Your task to perform on an android device: Clear the shopping cart on bestbuy.com. Search for "energizer triple a" on bestbuy.com, select the first entry, add it to the cart, then select checkout. Image 0: 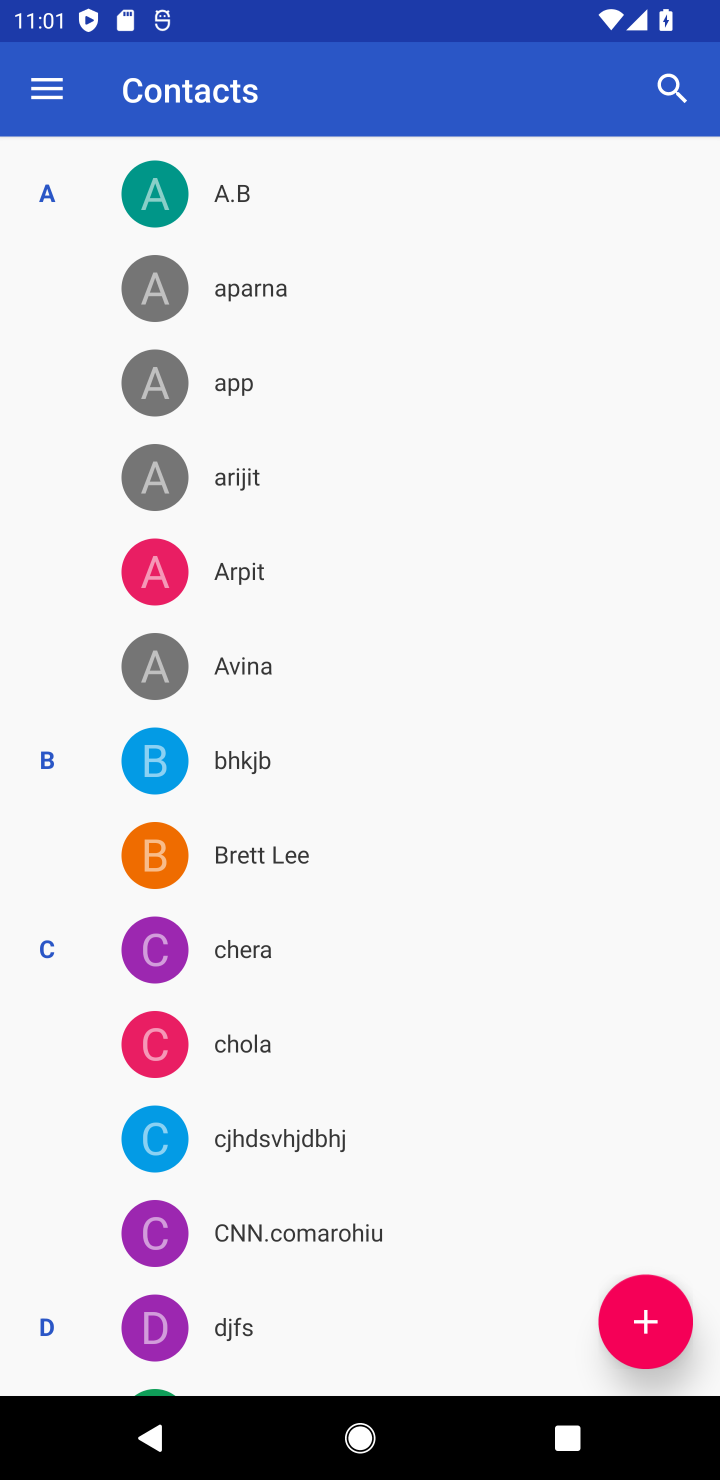
Step 0: press home button
Your task to perform on an android device: Clear the shopping cart on bestbuy.com. Search for "energizer triple a" on bestbuy.com, select the first entry, add it to the cart, then select checkout. Image 1: 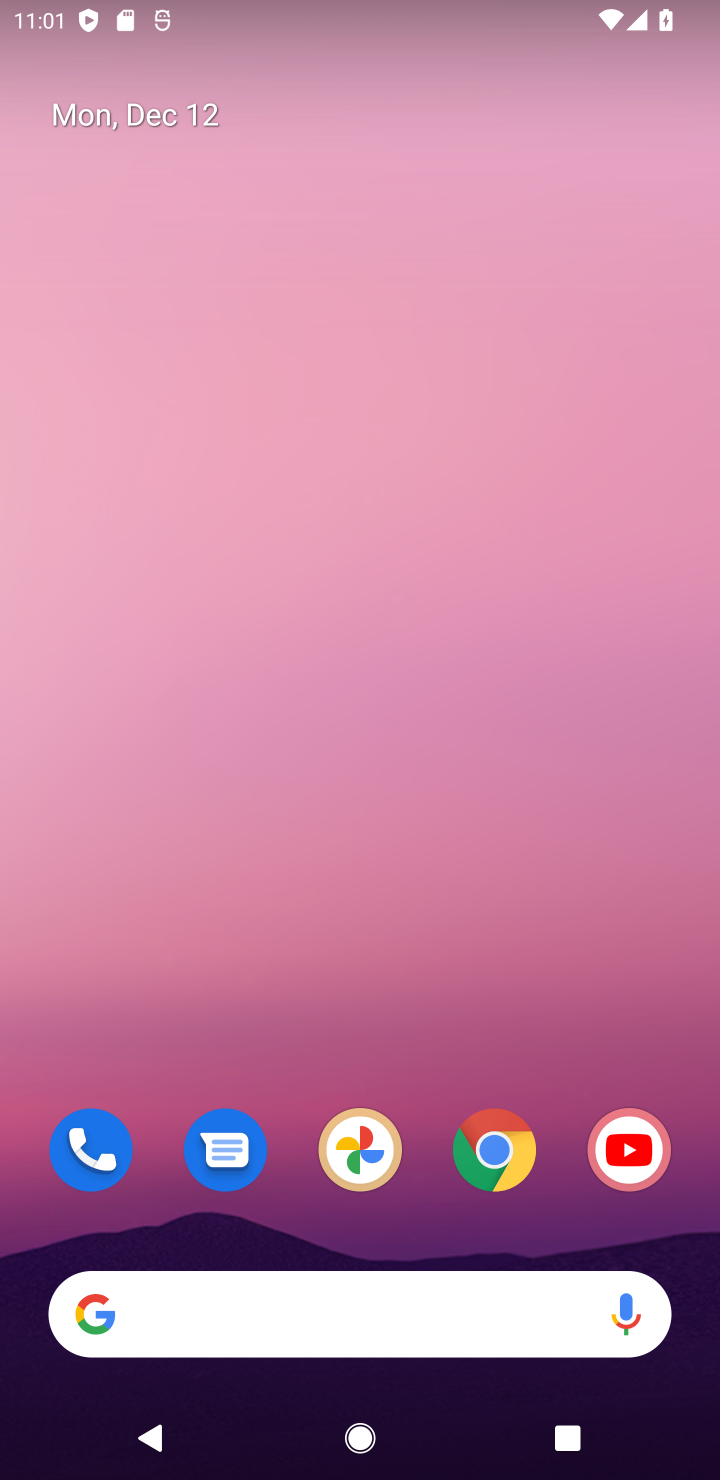
Step 1: click (503, 1148)
Your task to perform on an android device: Clear the shopping cart on bestbuy.com. Search for "energizer triple a" on bestbuy.com, select the first entry, add it to the cart, then select checkout. Image 2: 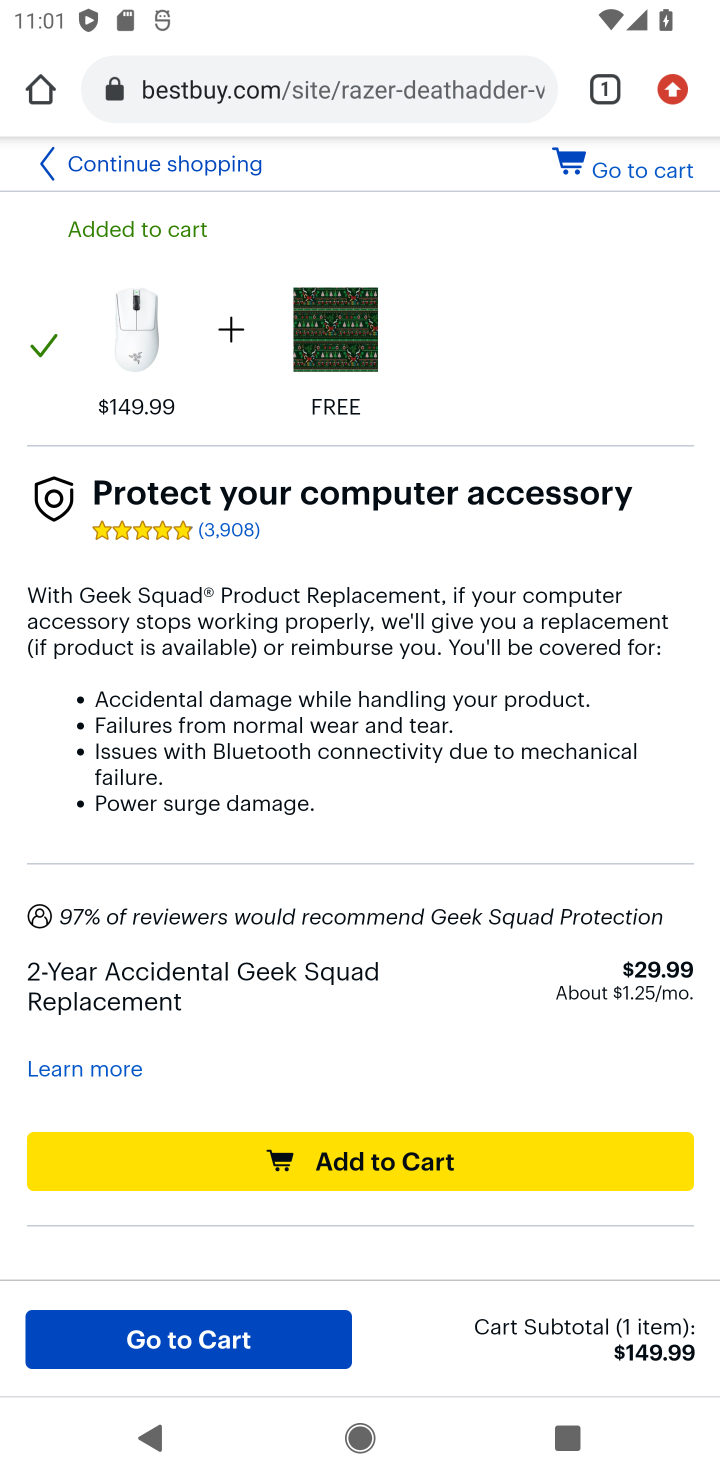
Step 2: click (658, 167)
Your task to perform on an android device: Clear the shopping cart on bestbuy.com. Search for "energizer triple a" on bestbuy.com, select the first entry, add it to the cart, then select checkout. Image 3: 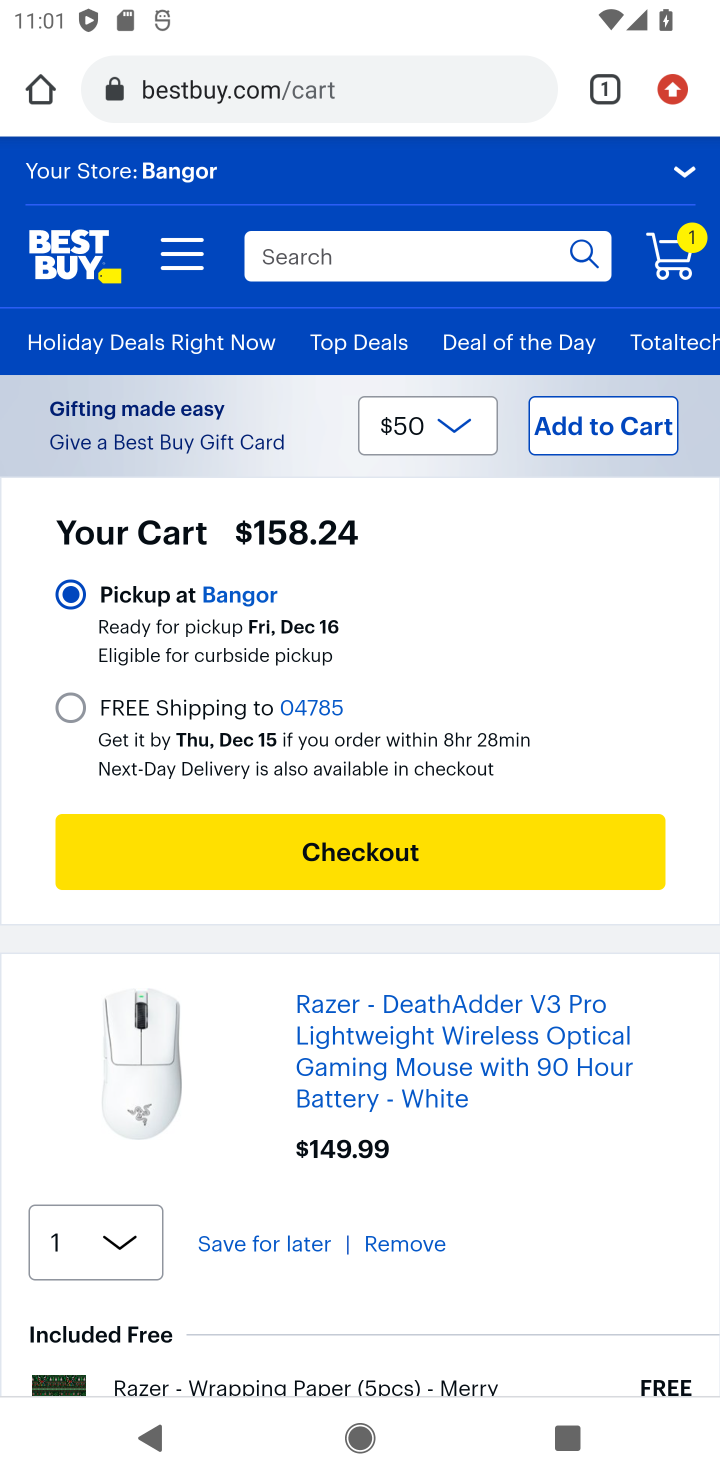
Step 3: click (412, 1250)
Your task to perform on an android device: Clear the shopping cart on bestbuy.com. Search for "energizer triple a" on bestbuy.com, select the first entry, add it to the cart, then select checkout. Image 4: 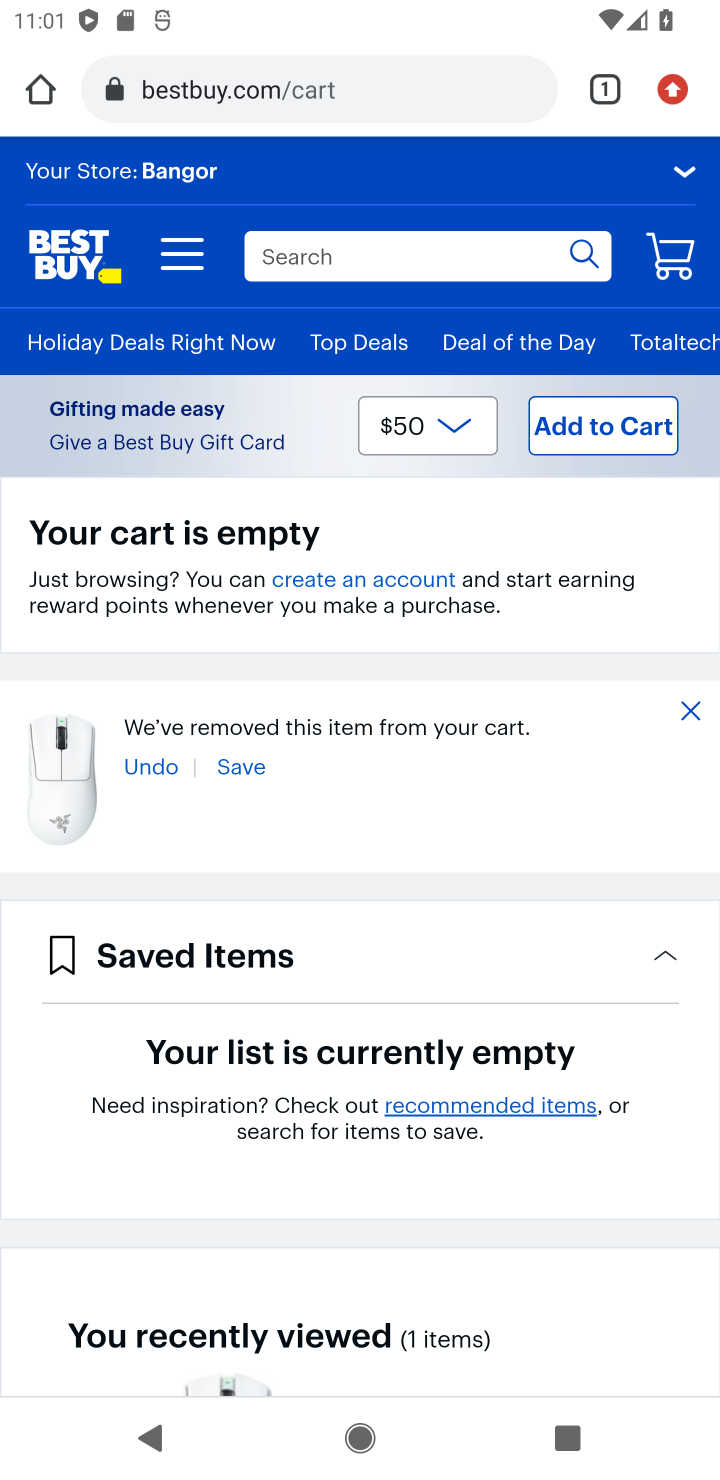
Step 4: drag from (431, 1226) to (457, 689)
Your task to perform on an android device: Clear the shopping cart on bestbuy.com. Search for "energizer triple a" on bestbuy.com, select the first entry, add it to the cart, then select checkout. Image 5: 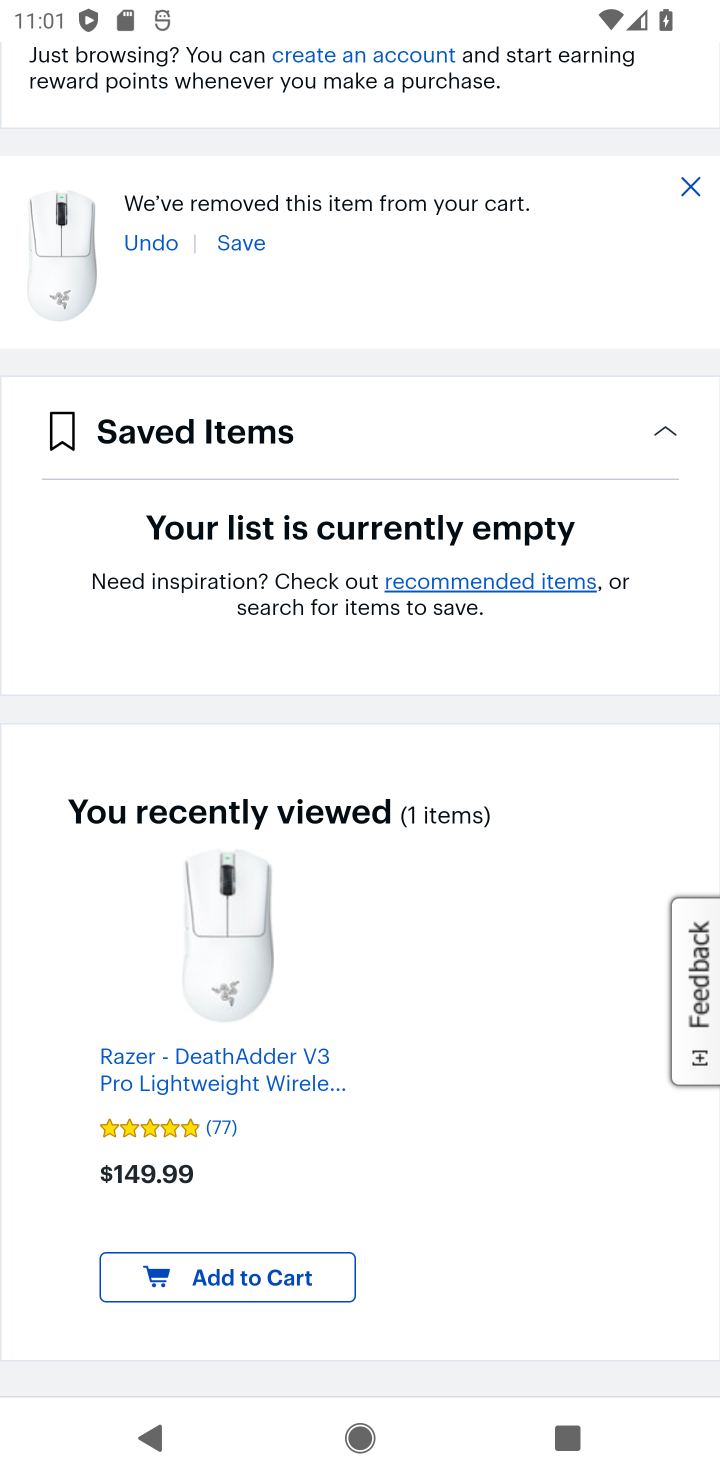
Step 5: drag from (419, 388) to (419, 1135)
Your task to perform on an android device: Clear the shopping cart on bestbuy.com. Search for "energizer triple a" on bestbuy.com, select the first entry, add it to the cart, then select checkout. Image 6: 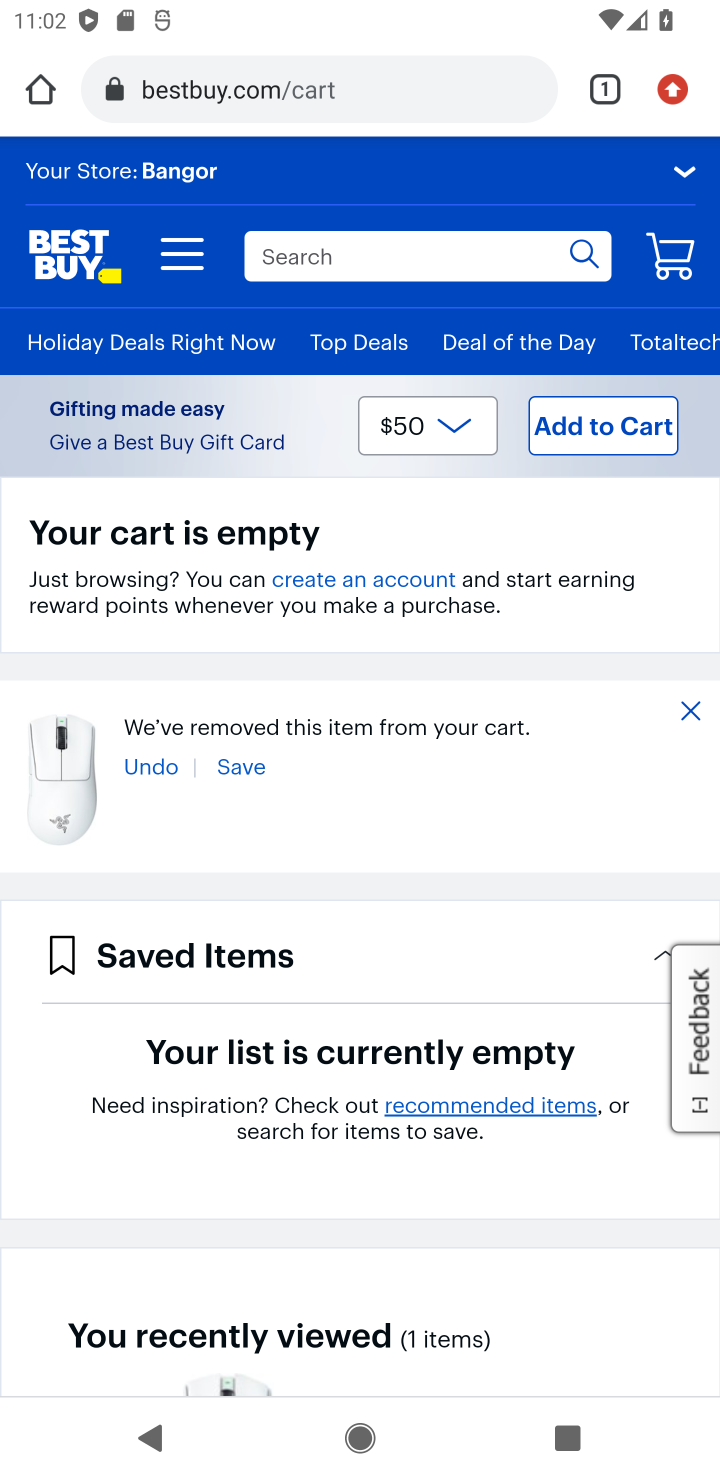
Step 6: click (267, 265)
Your task to perform on an android device: Clear the shopping cart on bestbuy.com. Search for "energizer triple a" on bestbuy.com, select the first entry, add it to the cart, then select checkout. Image 7: 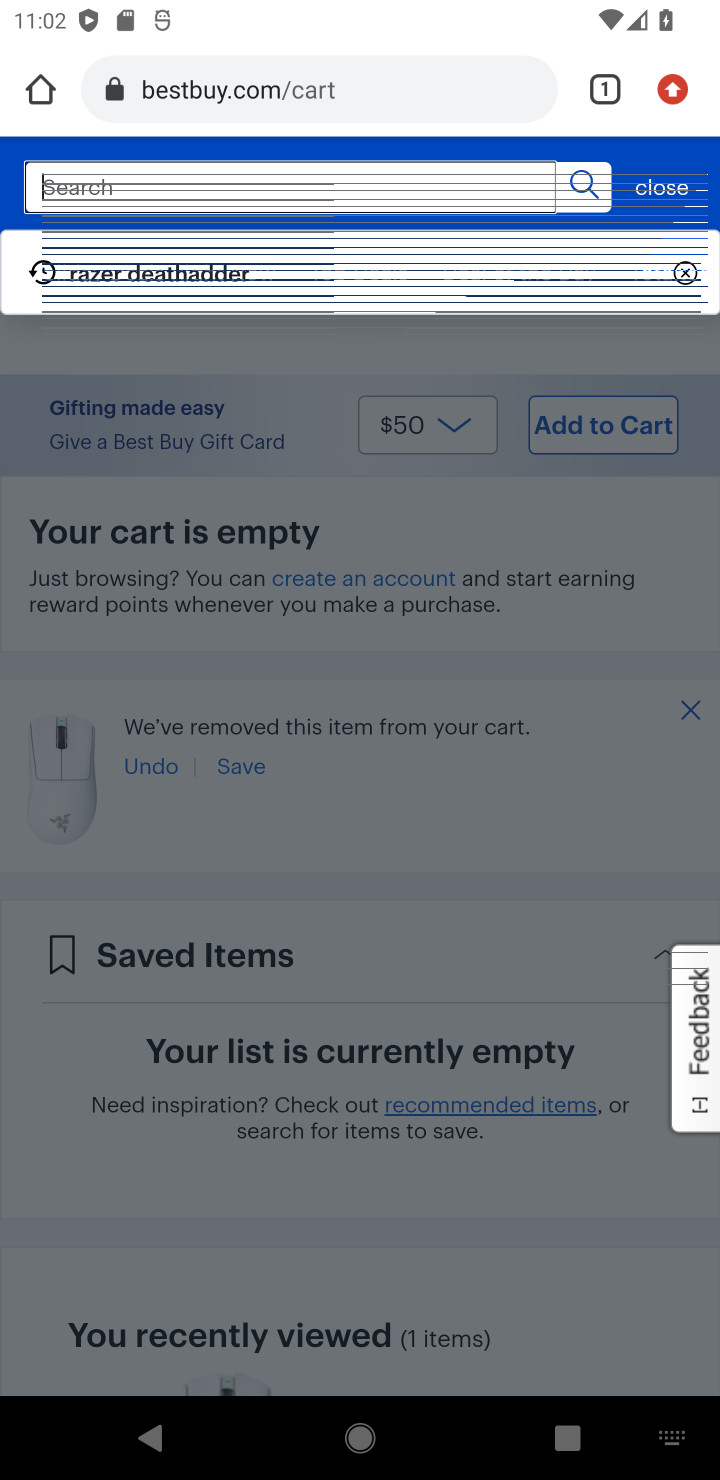
Step 7: type "energizer triple a"
Your task to perform on an android device: Clear the shopping cart on bestbuy.com. Search for "energizer triple a" on bestbuy.com, select the first entry, add it to the cart, then select checkout. Image 8: 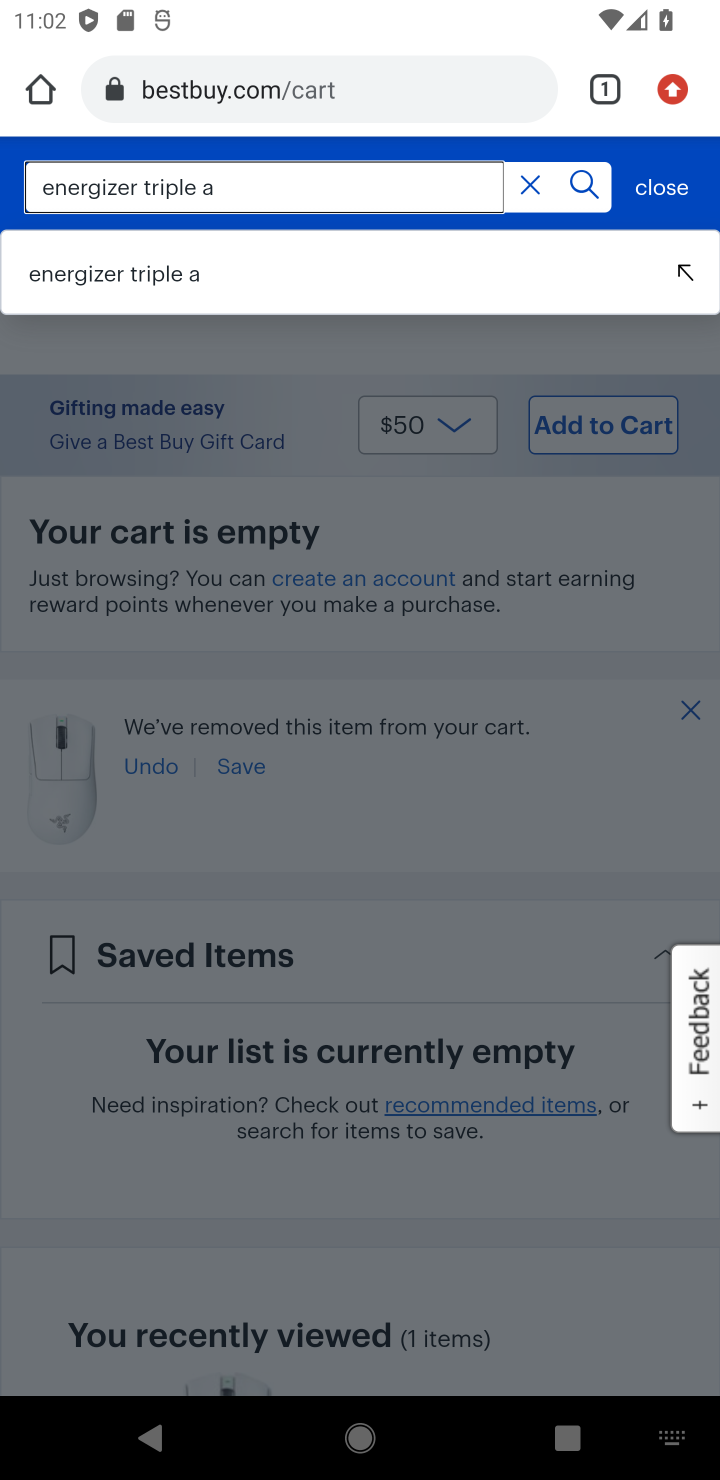
Step 8: click (129, 272)
Your task to perform on an android device: Clear the shopping cart on bestbuy.com. Search for "energizer triple a" on bestbuy.com, select the first entry, add it to the cart, then select checkout. Image 9: 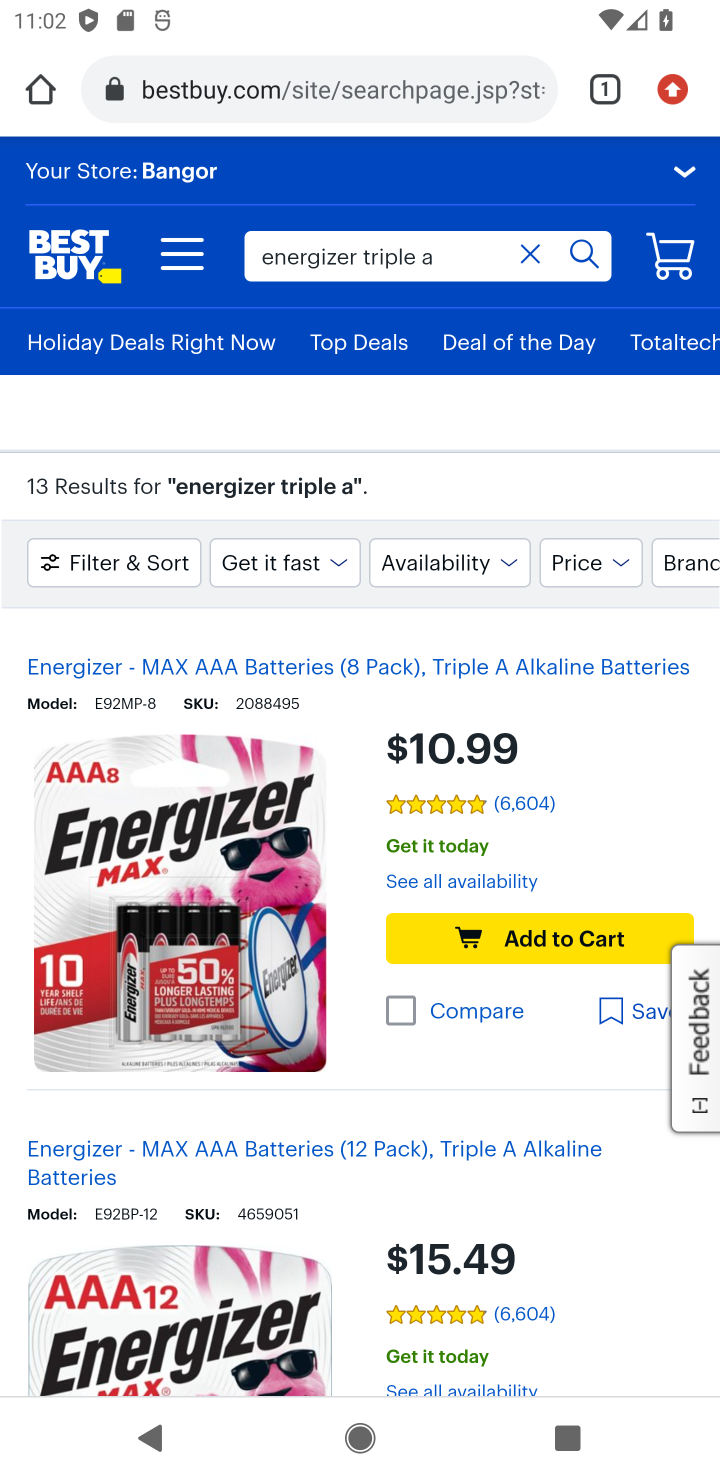
Step 9: click (552, 936)
Your task to perform on an android device: Clear the shopping cart on bestbuy.com. Search for "energizer triple a" on bestbuy.com, select the first entry, add it to the cart, then select checkout. Image 10: 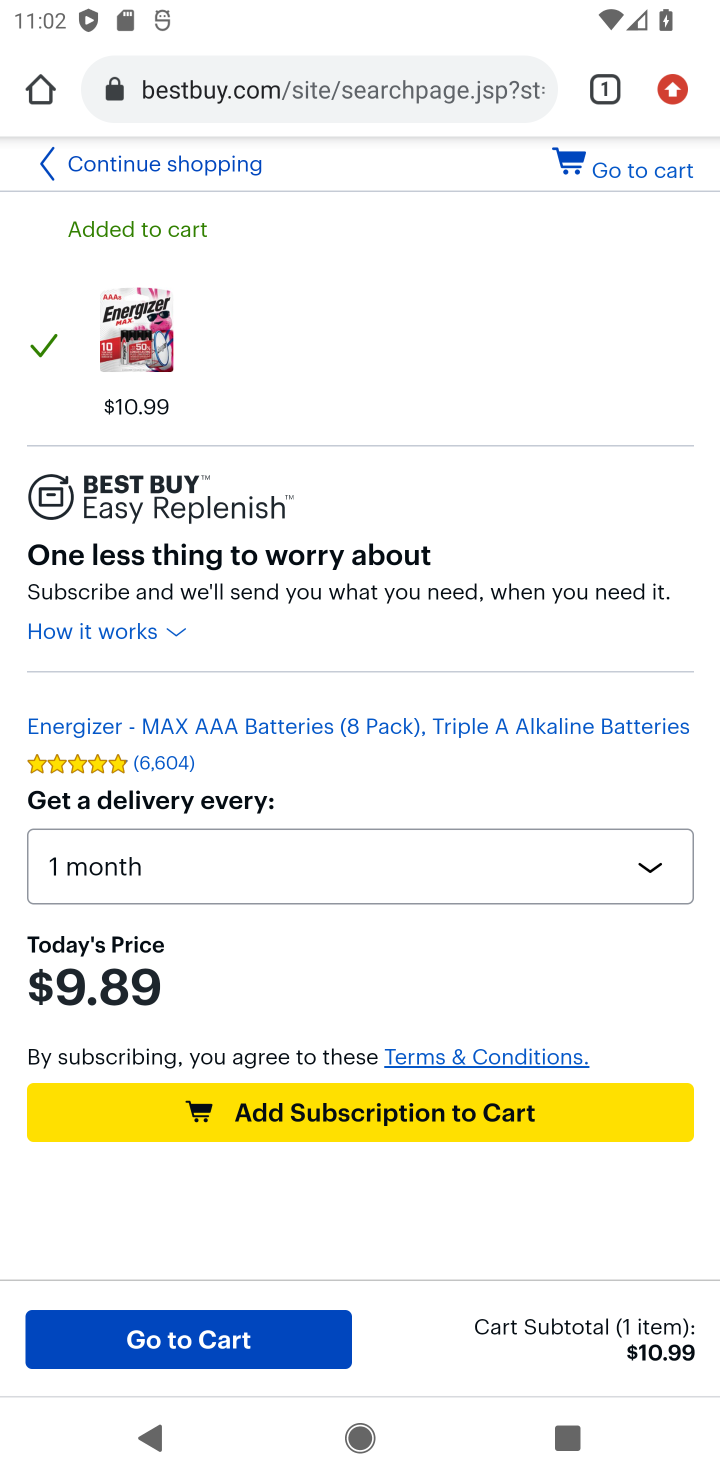
Step 10: click (651, 172)
Your task to perform on an android device: Clear the shopping cart on bestbuy.com. Search for "energizer triple a" on bestbuy.com, select the first entry, add it to the cart, then select checkout. Image 11: 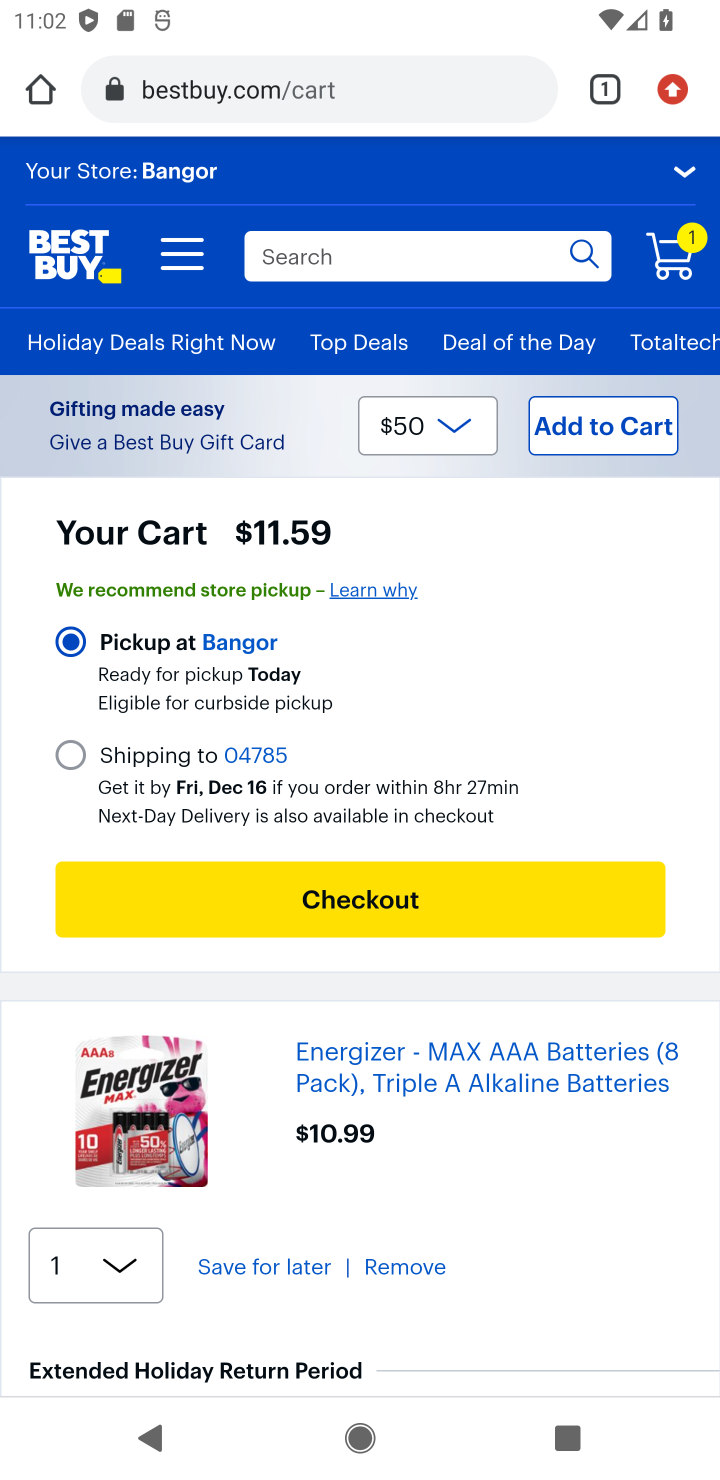
Step 11: click (357, 894)
Your task to perform on an android device: Clear the shopping cart on bestbuy.com. Search for "energizer triple a" on bestbuy.com, select the first entry, add it to the cart, then select checkout. Image 12: 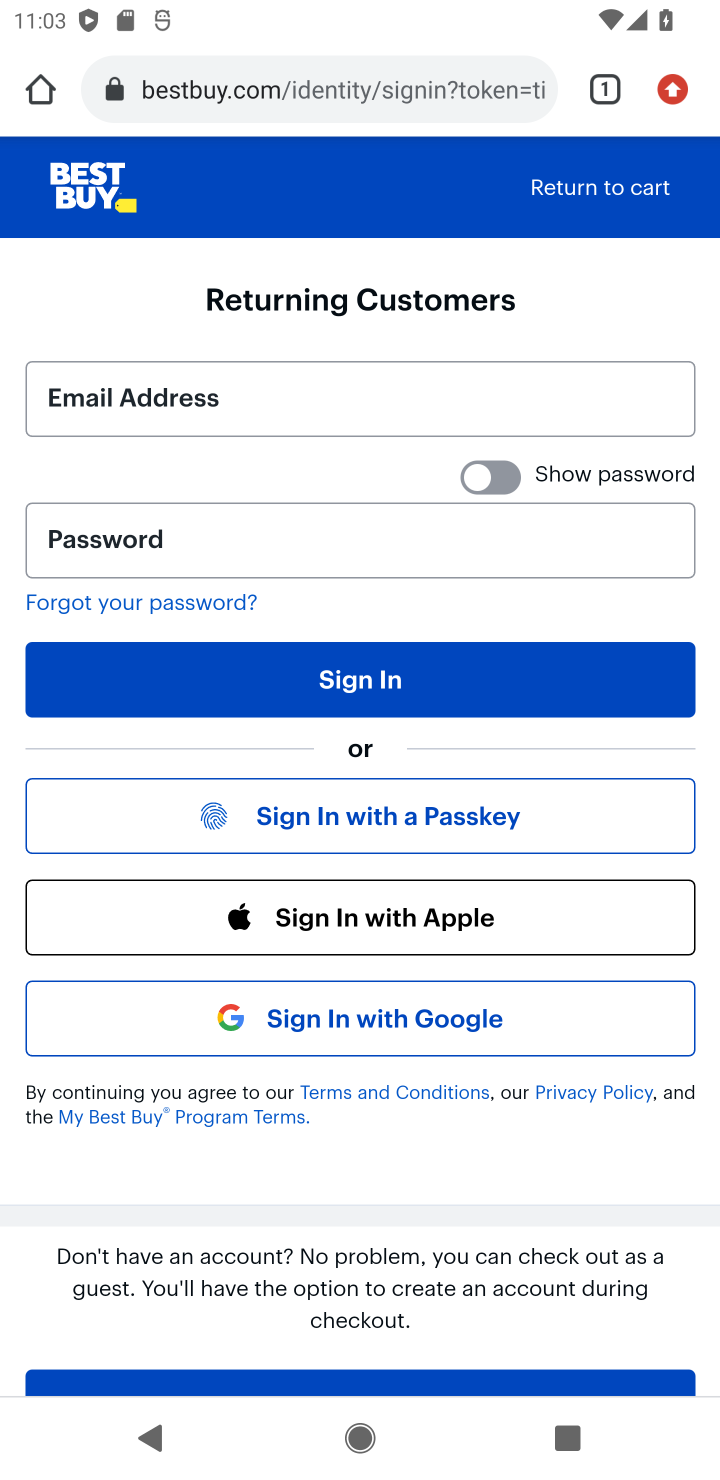
Step 12: task complete